Your task to perform on an android device: Open Google Chrome and click the shortcut for Amazon.com Image 0: 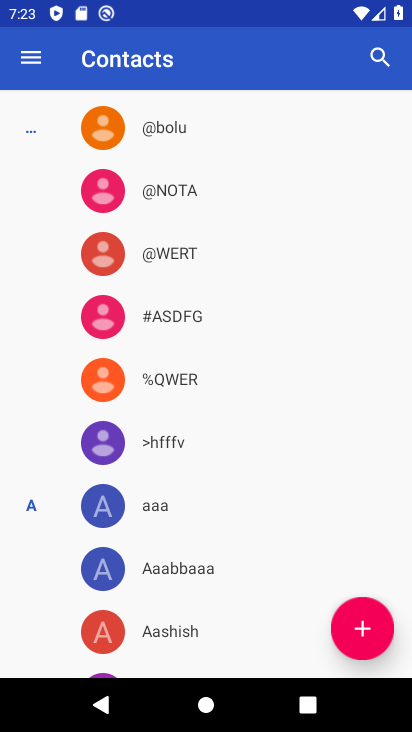
Step 0: press home button
Your task to perform on an android device: Open Google Chrome and click the shortcut for Amazon.com Image 1: 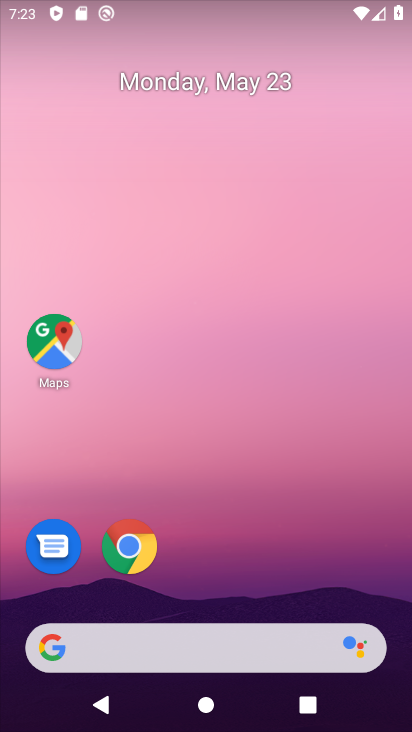
Step 1: drag from (377, 525) to (401, 59)
Your task to perform on an android device: Open Google Chrome and click the shortcut for Amazon.com Image 2: 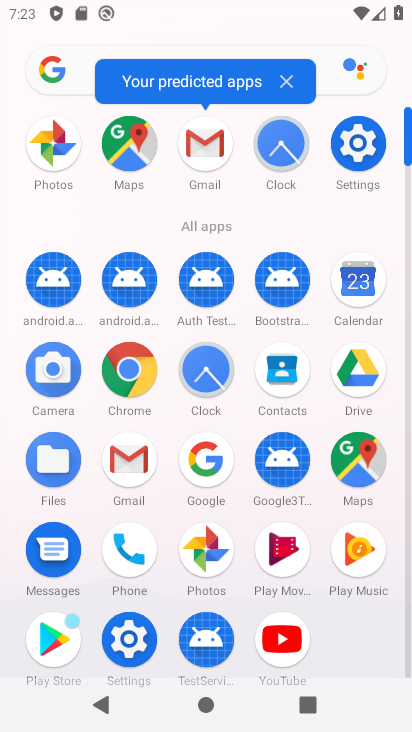
Step 2: click (139, 389)
Your task to perform on an android device: Open Google Chrome and click the shortcut for Amazon.com Image 3: 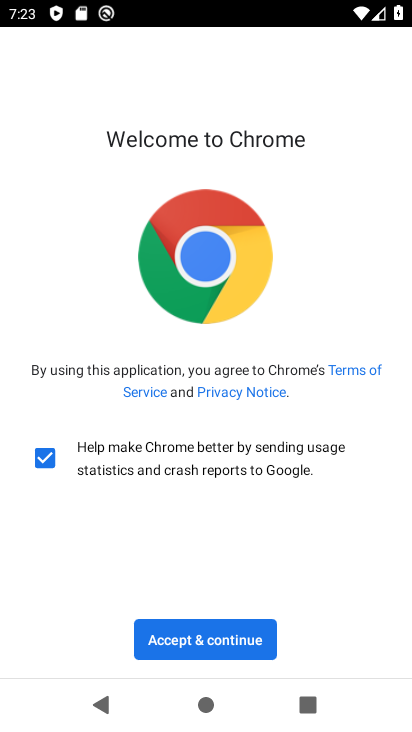
Step 3: click (225, 641)
Your task to perform on an android device: Open Google Chrome and click the shortcut for Amazon.com Image 4: 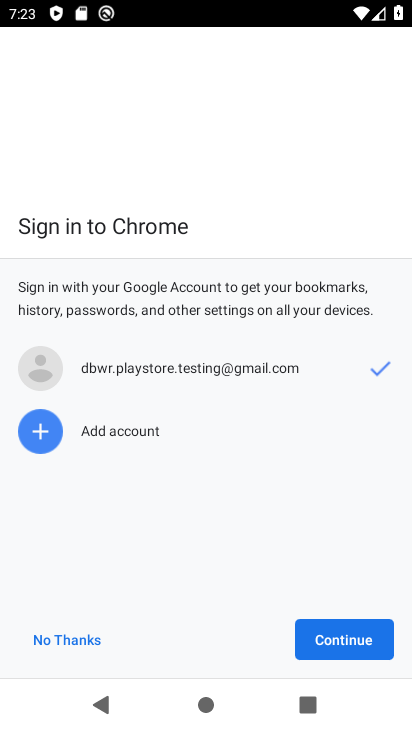
Step 4: click (312, 644)
Your task to perform on an android device: Open Google Chrome and click the shortcut for Amazon.com Image 5: 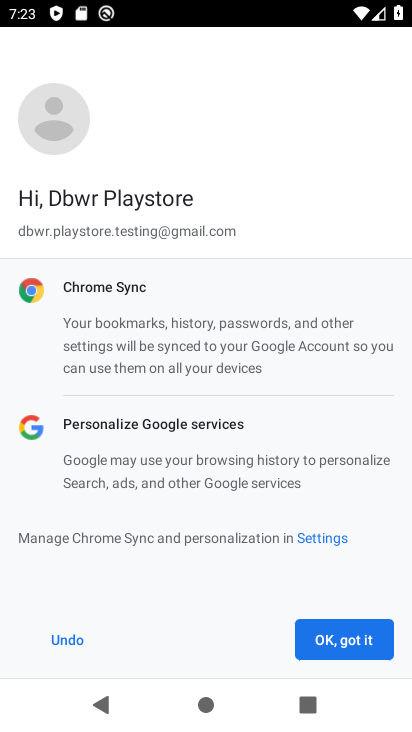
Step 5: click (350, 641)
Your task to perform on an android device: Open Google Chrome and click the shortcut for Amazon.com Image 6: 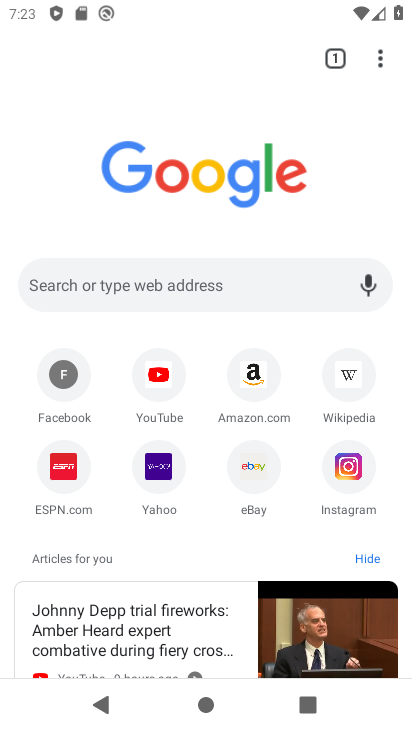
Step 6: click (257, 383)
Your task to perform on an android device: Open Google Chrome and click the shortcut for Amazon.com Image 7: 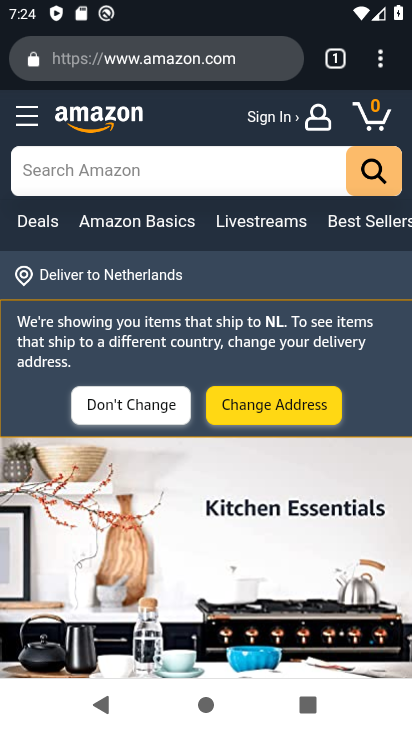
Step 7: task complete